Your task to perform on an android device: Show me productivity apps on the Play Store Image 0: 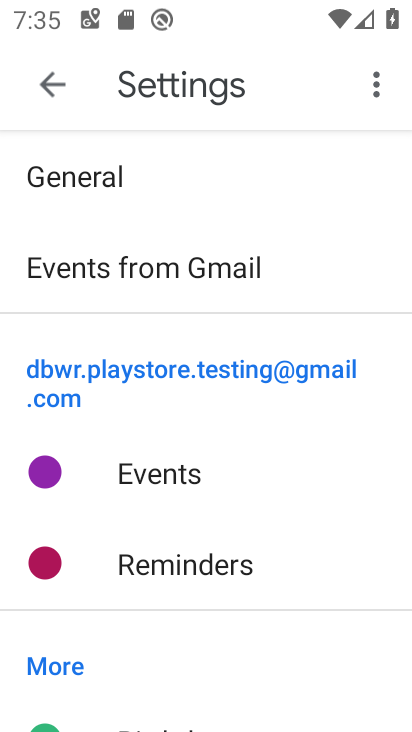
Step 0: press home button
Your task to perform on an android device: Show me productivity apps on the Play Store Image 1: 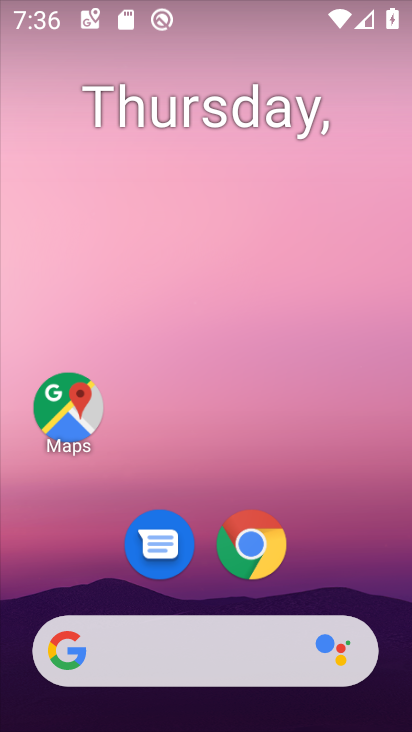
Step 1: drag from (277, 699) to (333, 69)
Your task to perform on an android device: Show me productivity apps on the Play Store Image 2: 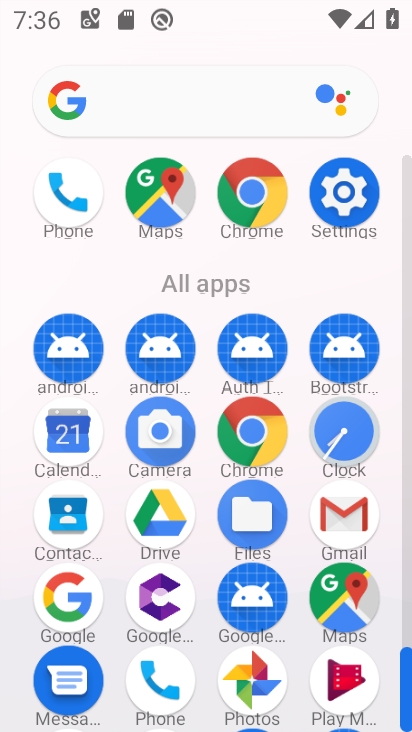
Step 2: drag from (113, 564) to (134, 217)
Your task to perform on an android device: Show me productivity apps on the Play Store Image 3: 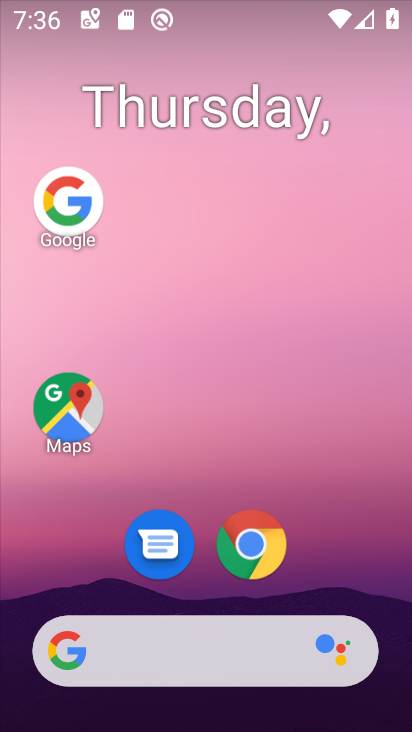
Step 3: drag from (247, 693) to (252, 27)
Your task to perform on an android device: Show me productivity apps on the Play Store Image 4: 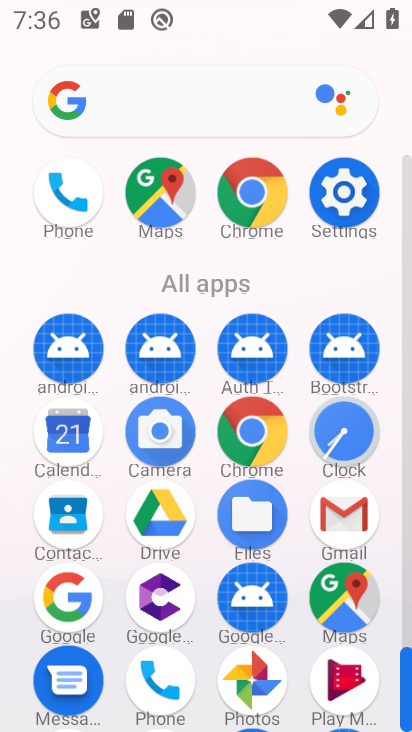
Step 4: drag from (206, 562) to (204, 172)
Your task to perform on an android device: Show me productivity apps on the Play Store Image 5: 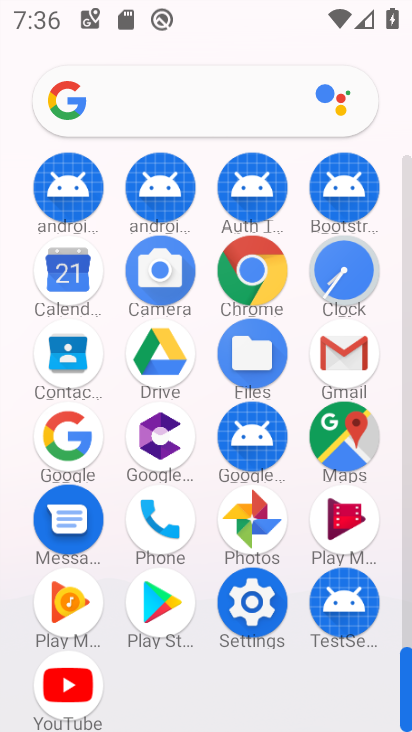
Step 5: click (159, 605)
Your task to perform on an android device: Show me productivity apps on the Play Store Image 6: 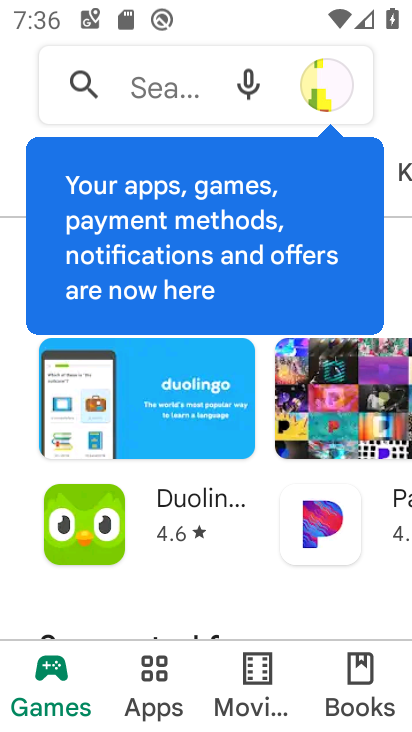
Step 6: click (148, 76)
Your task to perform on an android device: Show me productivity apps on the Play Store Image 7: 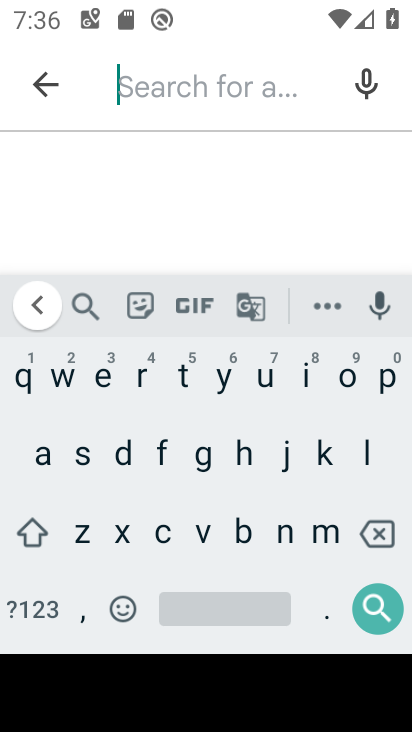
Step 7: click (382, 389)
Your task to perform on an android device: Show me productivity apps on the Play Store Image 8: 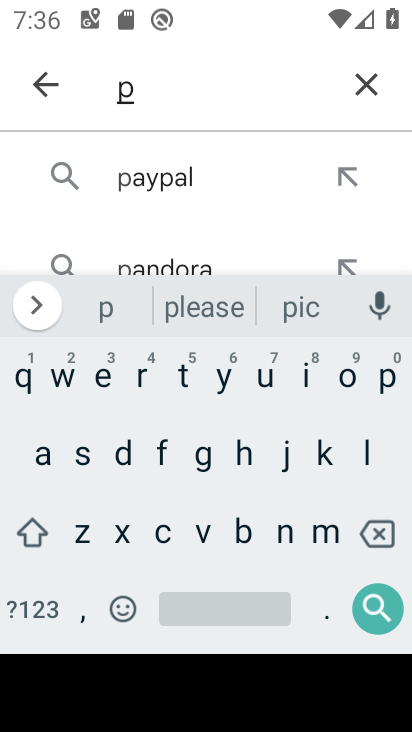
Step 8: click (136, 383)
Your task to perform on an android device: Show me productivity apps on the Play Store Image 9: 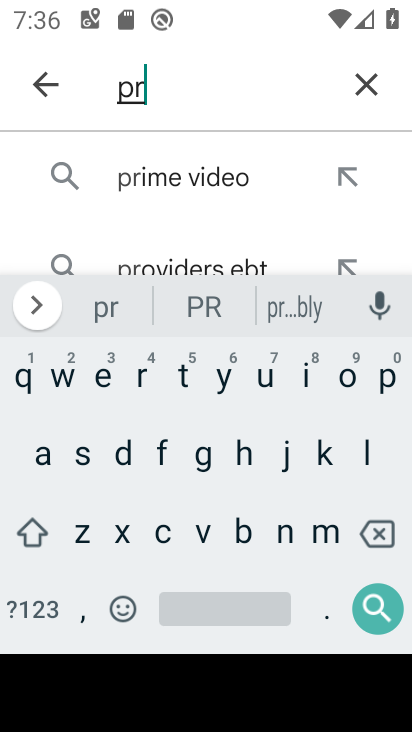
Step 9: click (341, 390)
Your task to perform on an android device: Show me productivity apps on the Play Store Image 10: 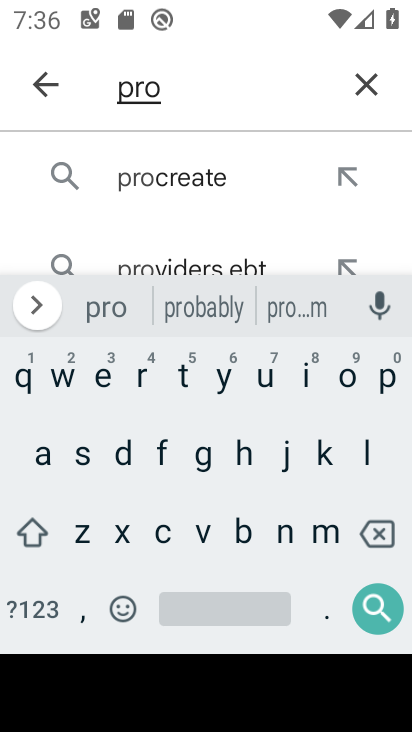
Step 10: click (119, 454)
Your task to perform on an android device: Show me productivity apps on the Play Store Image 11: 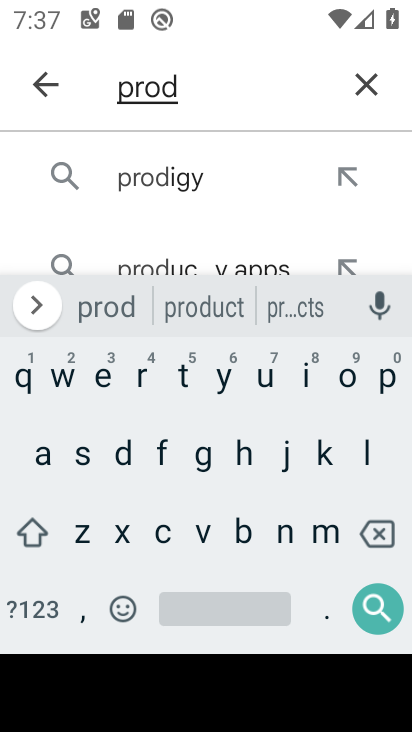
Step 11: click (259, 373)
Your task to perform on an android device: Show me productivity apps on the Play Store Image 12: 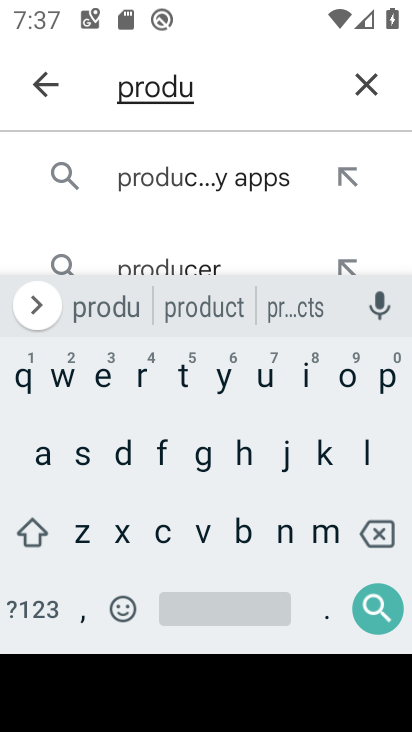
Step 12: click (183, 193)
Your task to perform on an android device: Show me productivity apps on the Play Store Image 13: 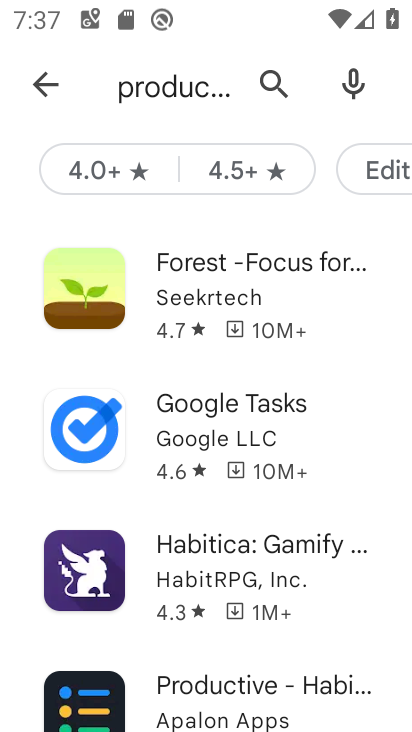
Step 13: task complete